Your task to perform on an android device: turn off smart reply in the gmail app Image 0: 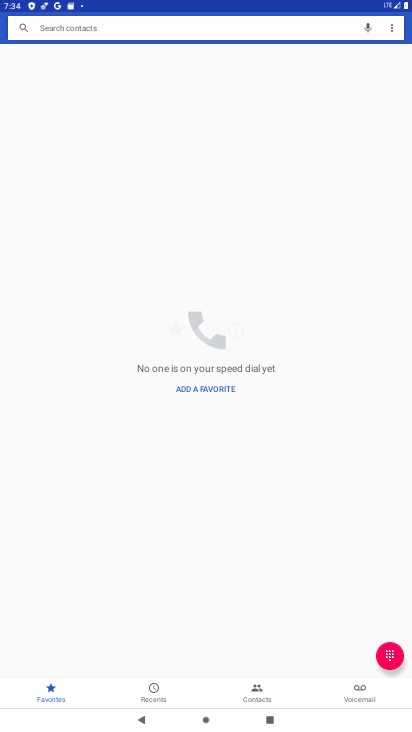
Step 0: press home button
Your task to perform on an android device: turn off smart reply in the gmail app Image 1: 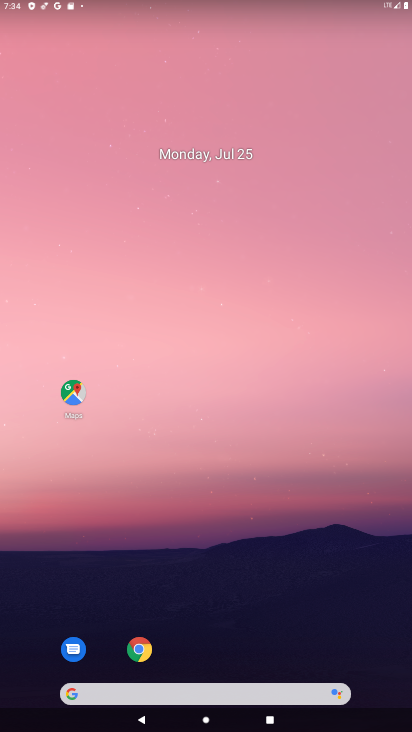
Step 1: drag from (184, 663) to (166, 4)
Your task to perform on an android device: turn off smart reply in the gmail app Image 2: 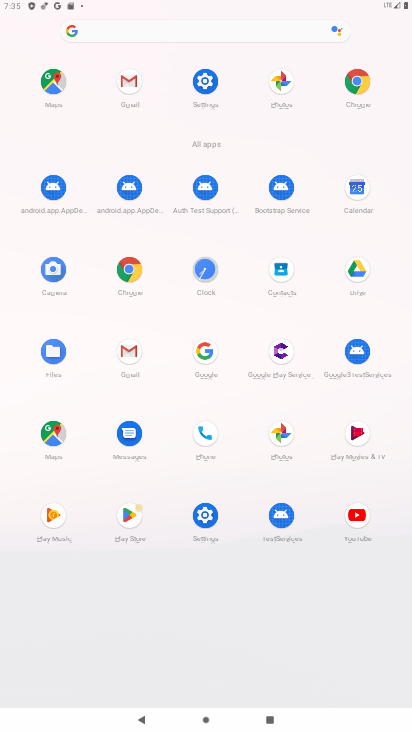
Step 2: click (120, 335)
Your task to perform on an android device: turn off smart reply in the gmail app Image 3: 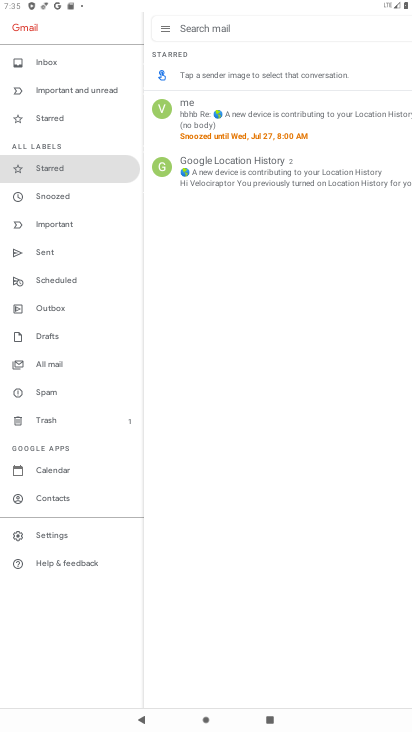
Step 3: click (29, 533)
Your task to perform on an android device: turn off smart reply in the gmail app Image 4: 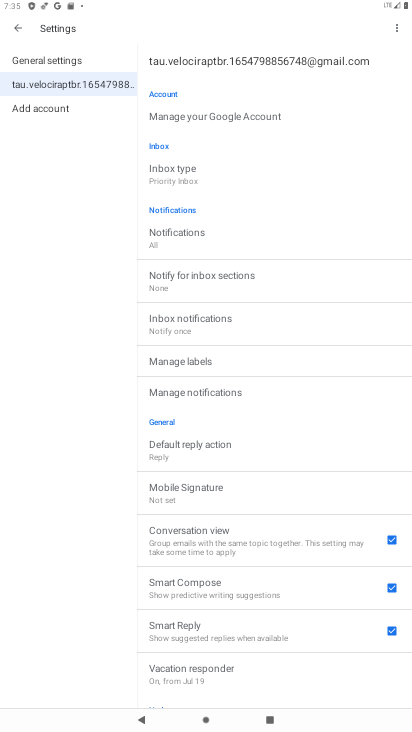
Step 4: click (387, 634)
Your task to perform on an android device: turn off smart reply in the gmail app Image 5: 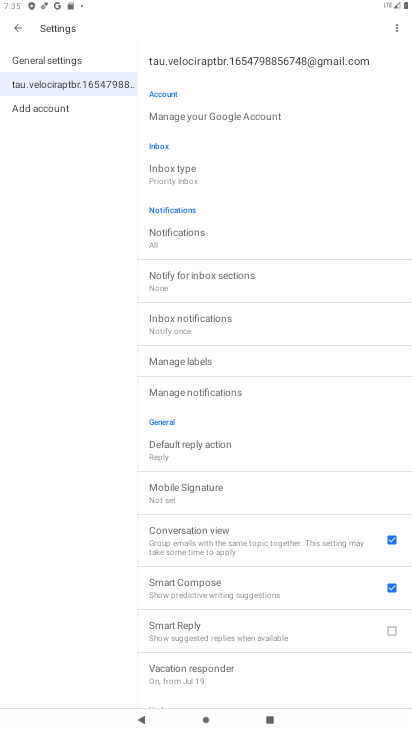
Step 5: task complete